Your task to perform on an android device: Open the Play Movies app and select the watchlist tab. Image 0: 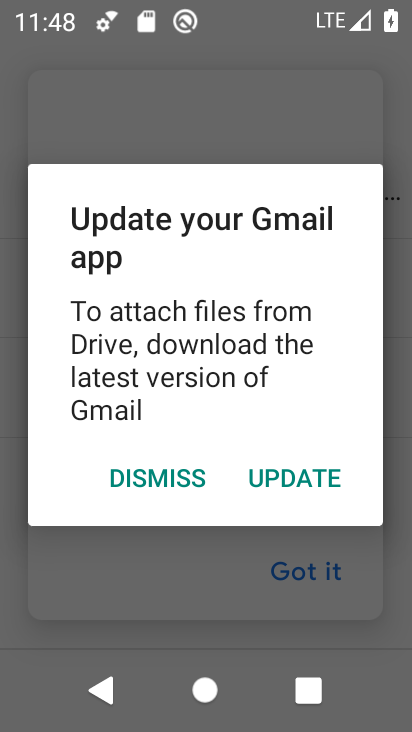
Step 0: press back button
Your task to perform on an android device: Open the Play Movies app and select the watchlist tab. Image 1: 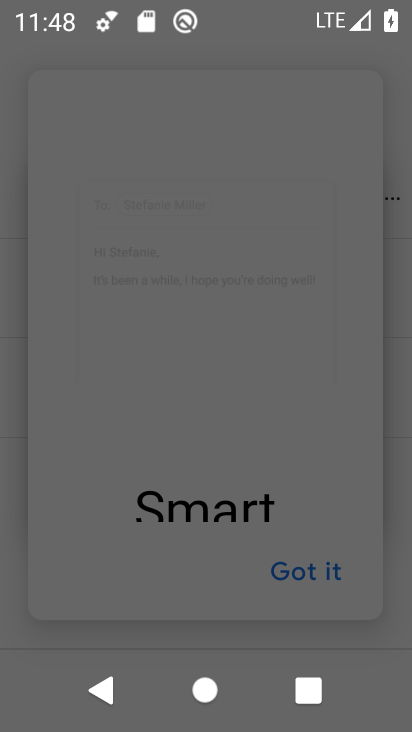
Step 1: press home button
Your task to perform on an android device: Open the Play Movies app and select the watchlist tab. Image 2: 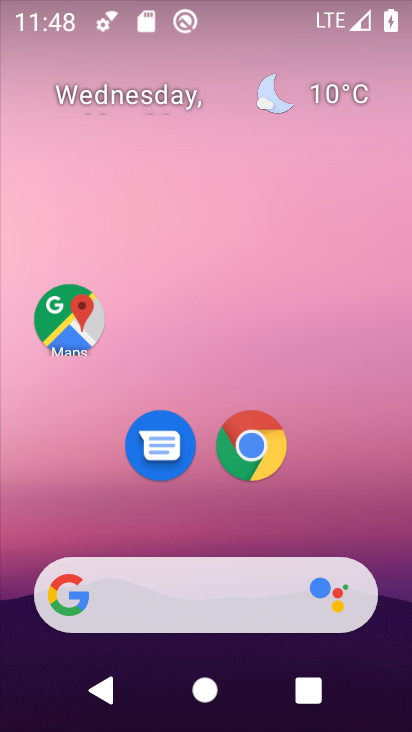
Step 2: drag from (255, 545) to (300, 90)
Your task to perform on an android device: Open the Play Movies app and select the watchlist tab. Image 3: 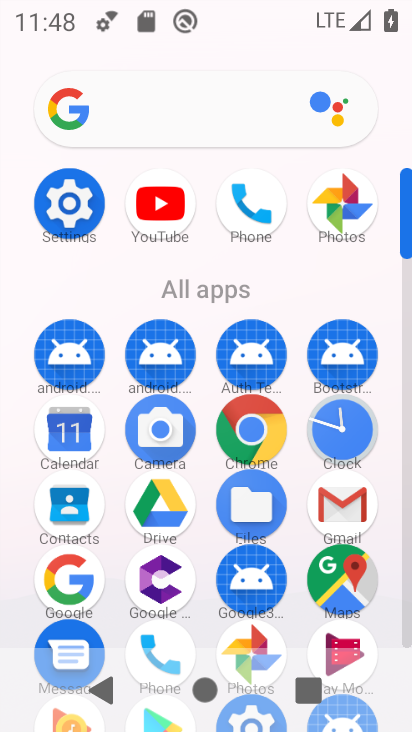
Step 3: click (341, 631)
Your task to perform on an android device: Open the Play Movies app and select the watchlist tab. Image 4: 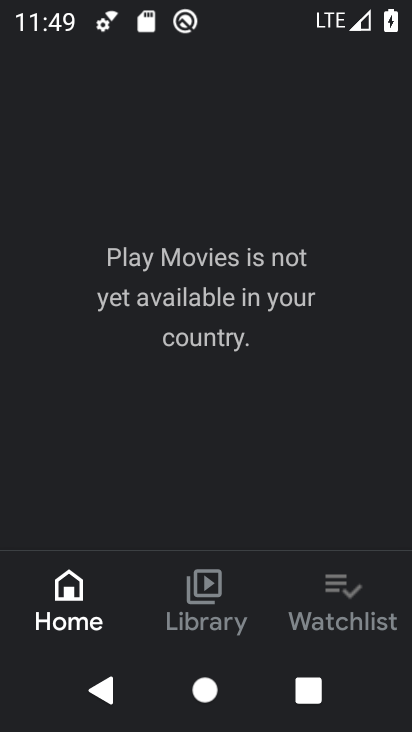
Step 4: click (346, 617)
Your task to perform on an android device: Open the Play Movies app and select the watchlist tab. Image 5: 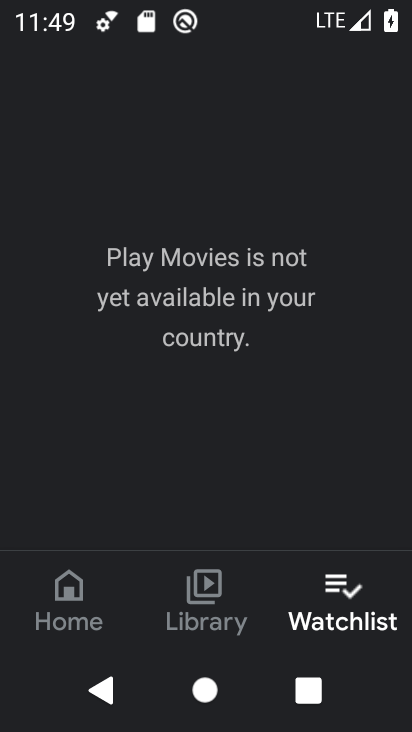
Step 5: task complete